Your task to perform on an android device: Open the stopwatch Image 0: 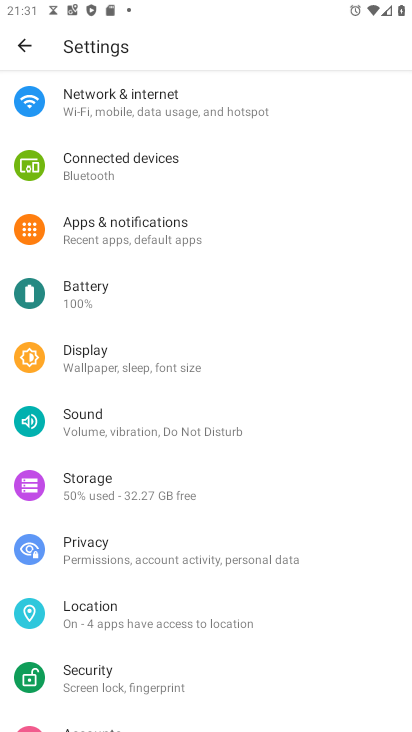
Step 0: press home button
Your task to perform on an android device: Open the stopwatch Image 1: 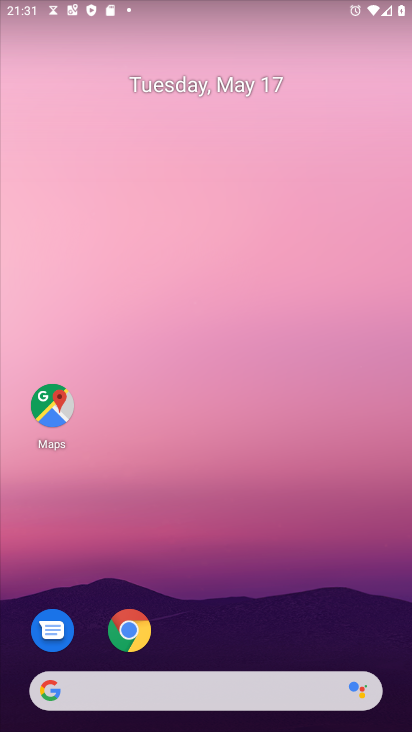
Step 1: drag from (227, 564) to (171, 121)
Your task to perform on an android device: Open the stopwatch Image 2: 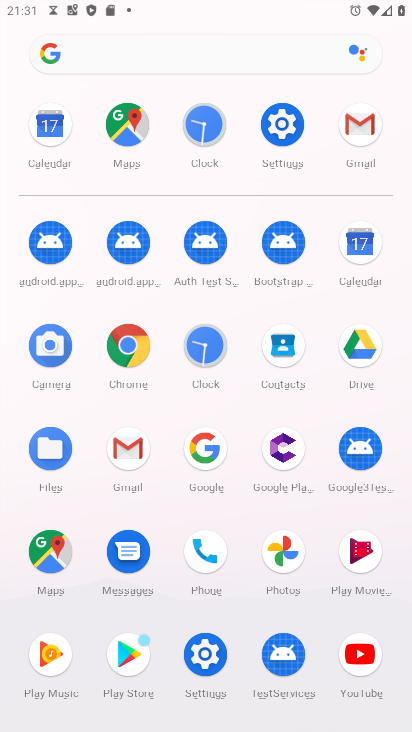
Step 2: click (205, 126)
Your task to perform on an android device: Open the stopwatch Image 3: 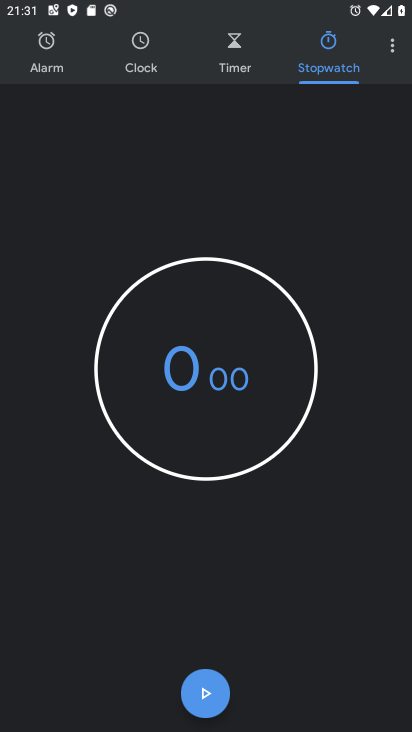
Step 3: task complete